Your task to perform on an android device: What is the recent news? Image 0: 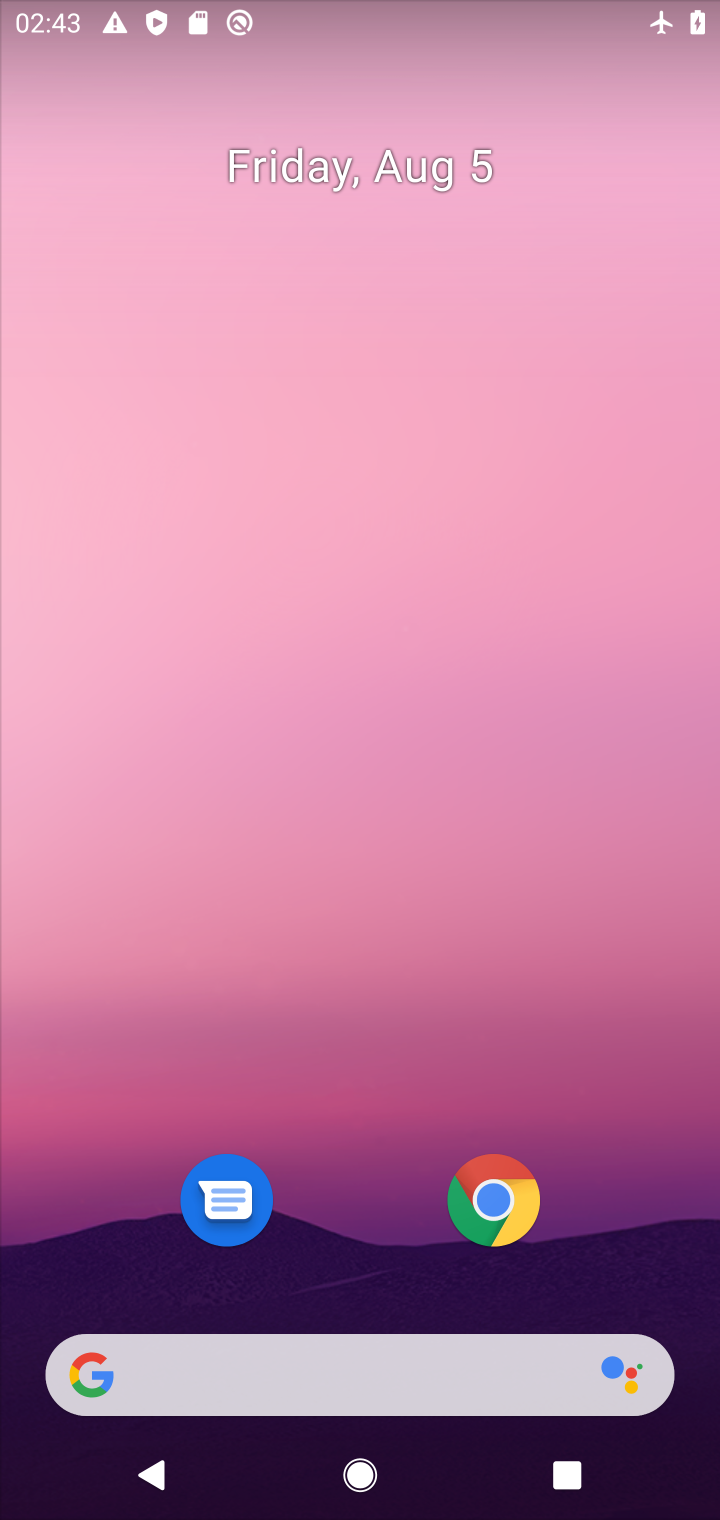
Step 0: drag from (365, 839) to (365, 188)
Your task to perform on an android device: What is the recent news? Image 1: 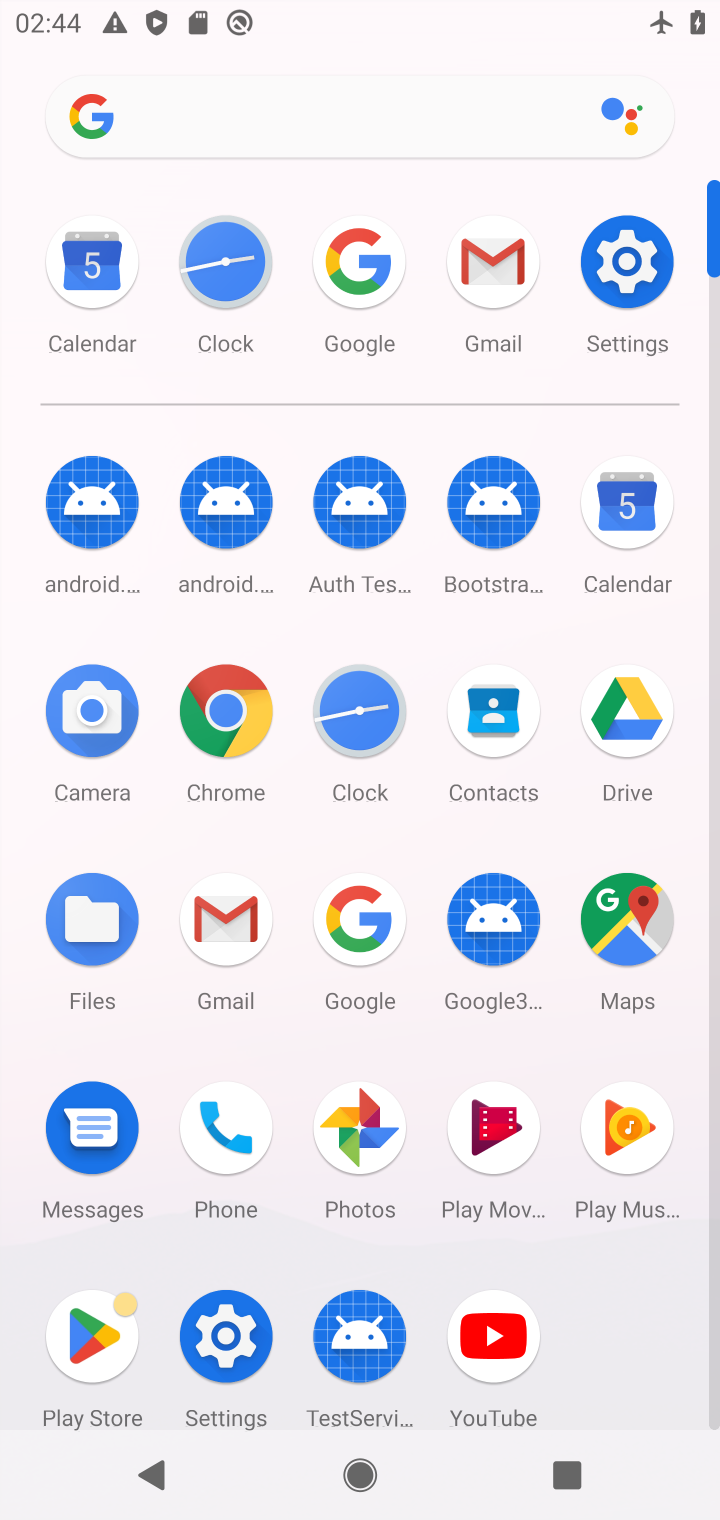
Step 1: click (332, 911)
Your task to perform on an android device: What is the recent news? Image 2: 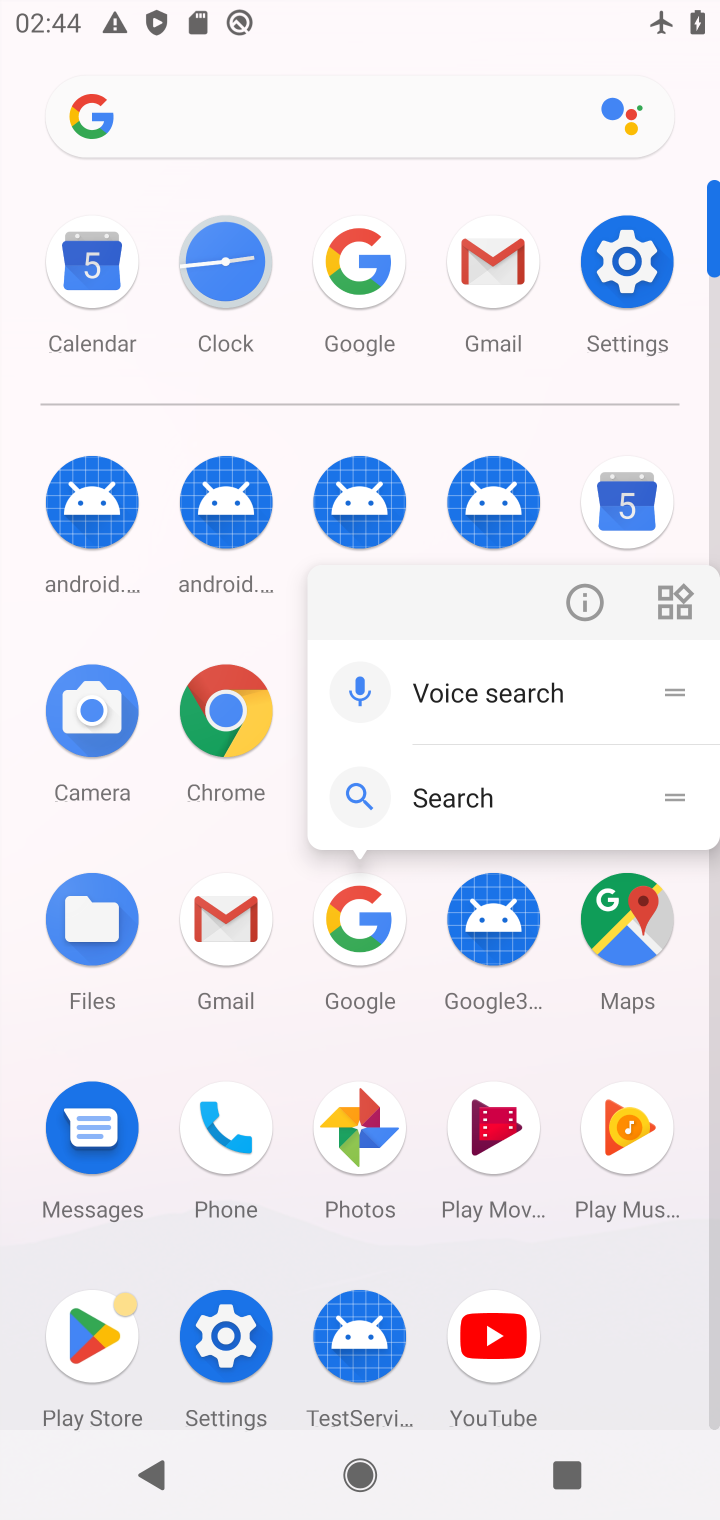
Step 2: click (332, 911)
Your task to perform on an android device: What is the recent news? Image 3: 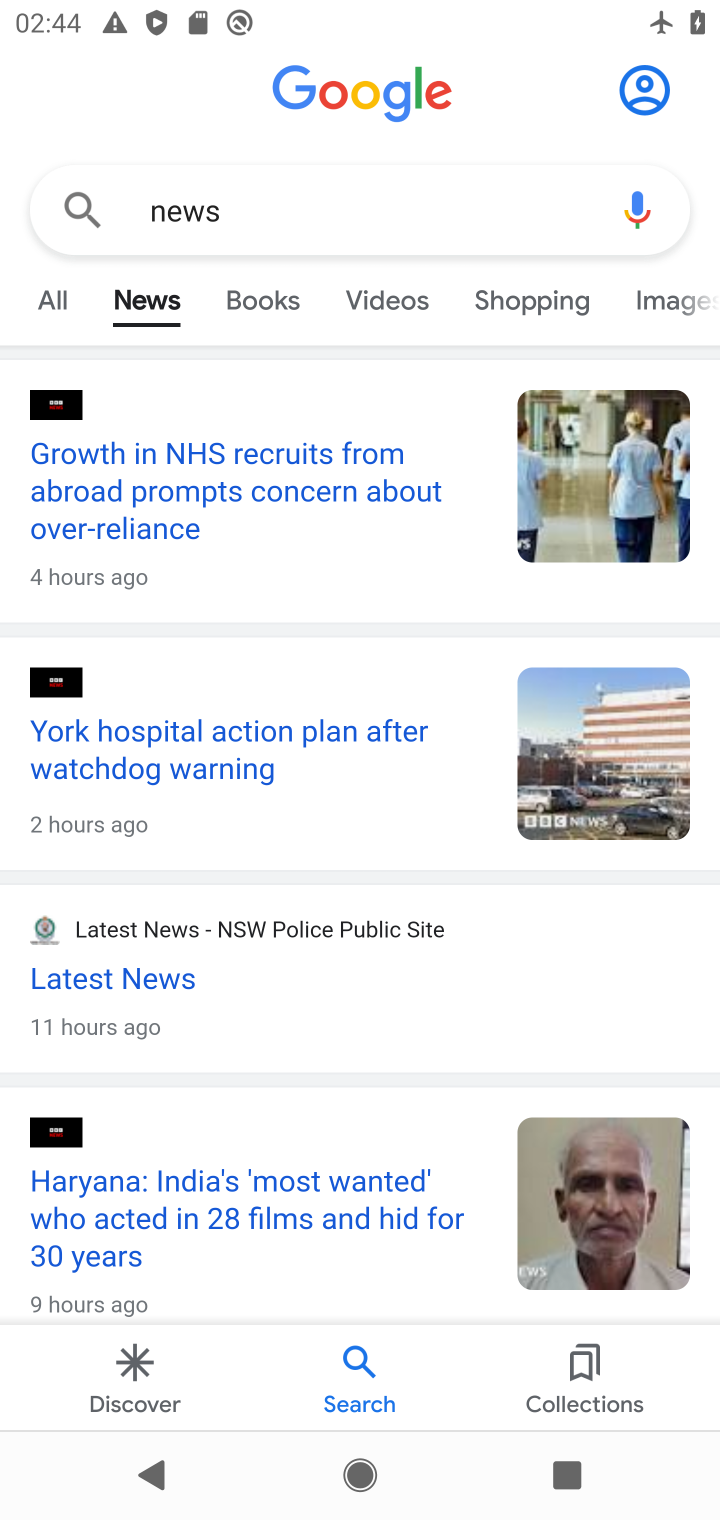
Step 3: task complete